Your task to perform on an android device: Search for the best rated 4K TV on Best Buy. Image 0: 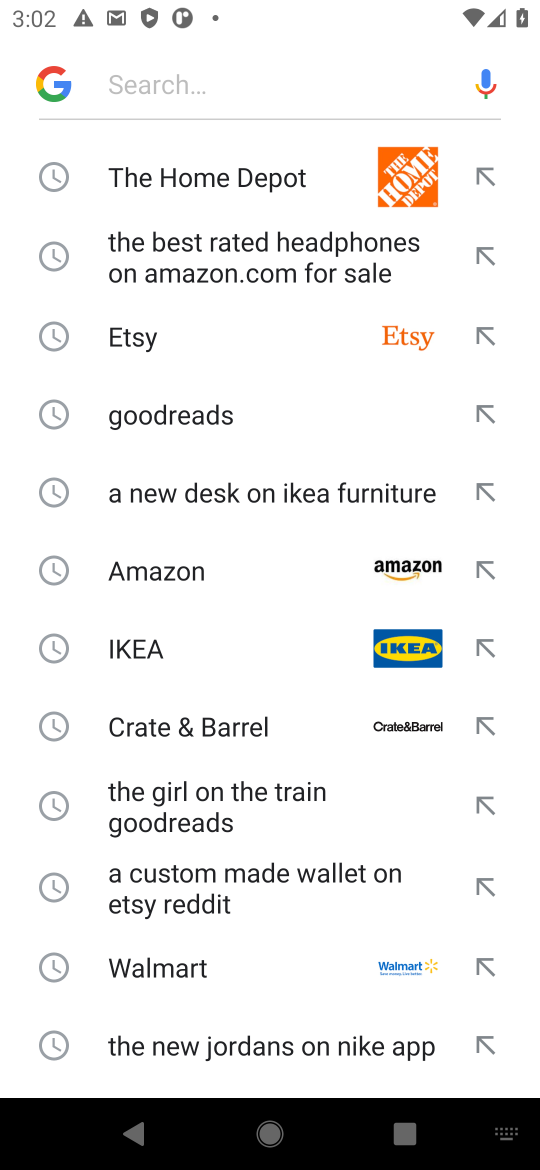
Step 0: press home button
Your task to perform on an android device: Search for the best rated 4K TV on Best Buy. Image 1: 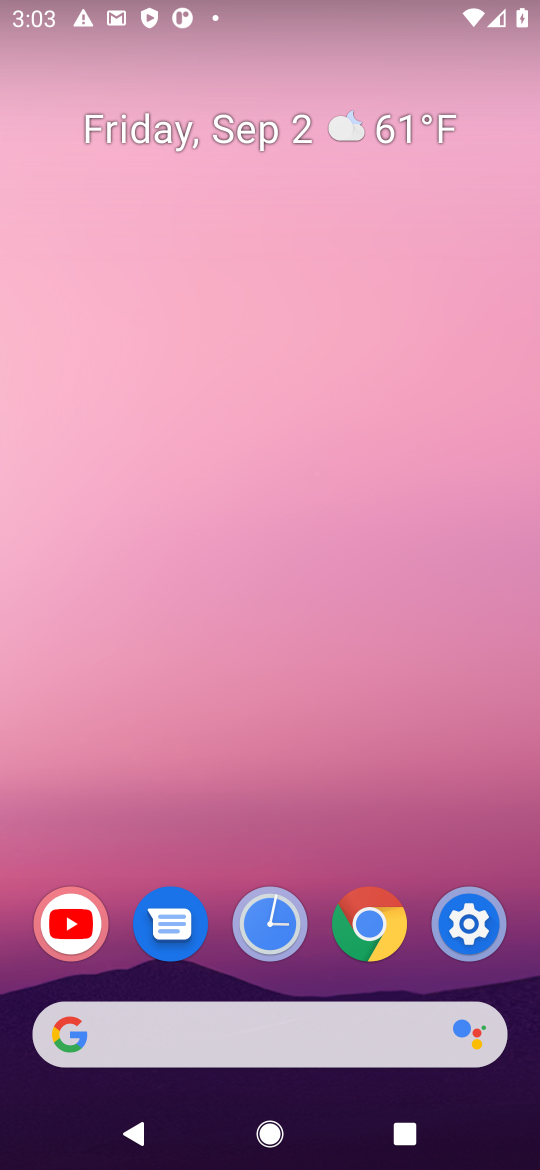
Step 1: click (377, 1026)
Your task to perform on an android device: Search for the best rated 4K TV on Best Buy. Image 2: 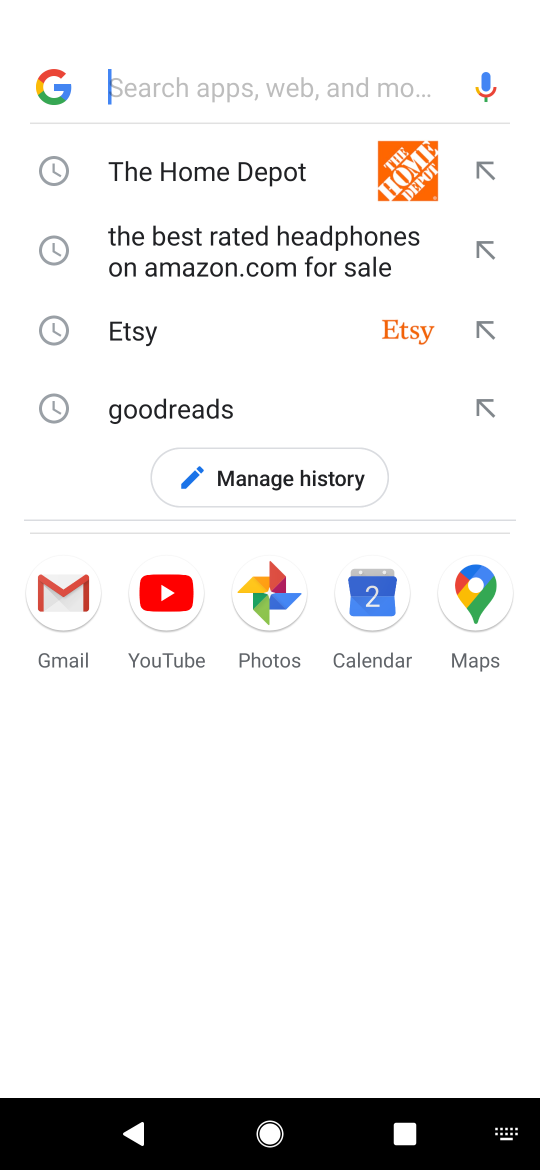
Step 2: press enter
Your task to perform on an android device: Search for the best rated 4K TV on Best Buy. Image 3: 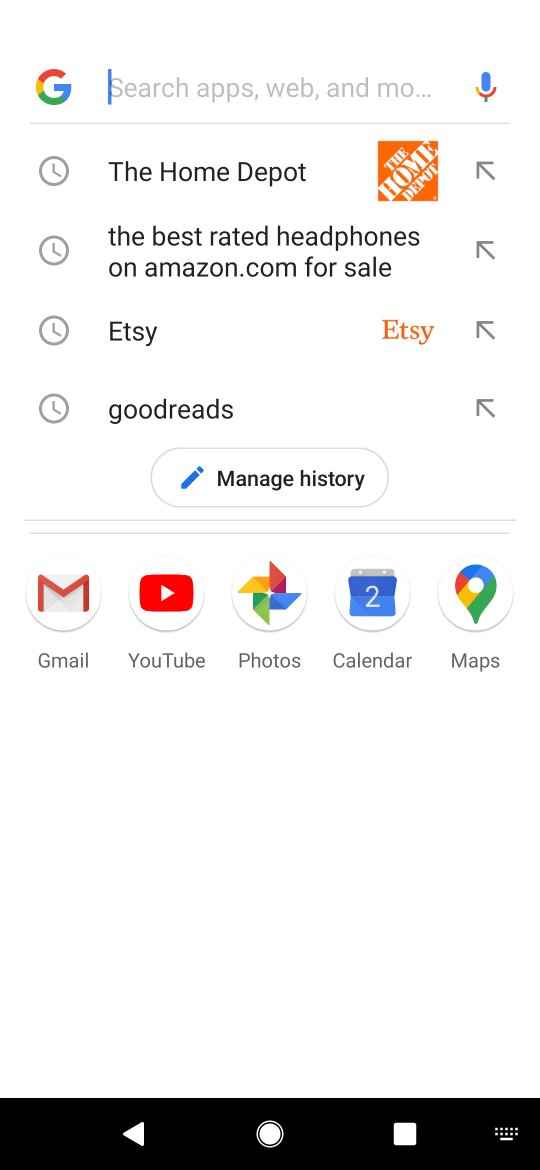
Step 3: type "best buy"
Your task to perform on an android device: Search for the best rated 4K TV on Best Buy. Image 4: 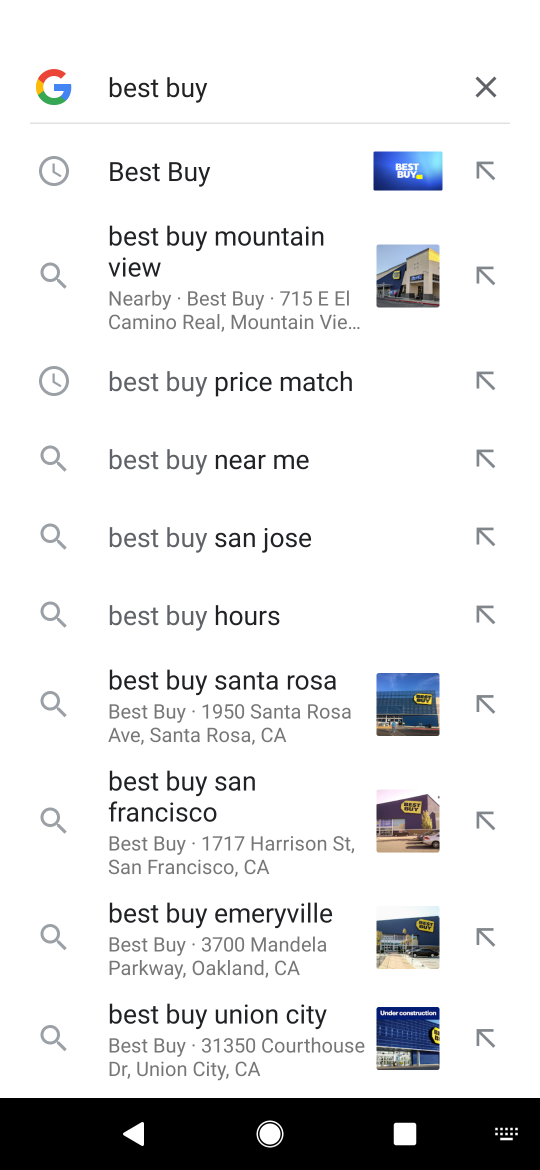
Step 4: click (223, 165)
Your task to perform on an android device: Search for the best rated 4K TV on Best Buy. Image 5: 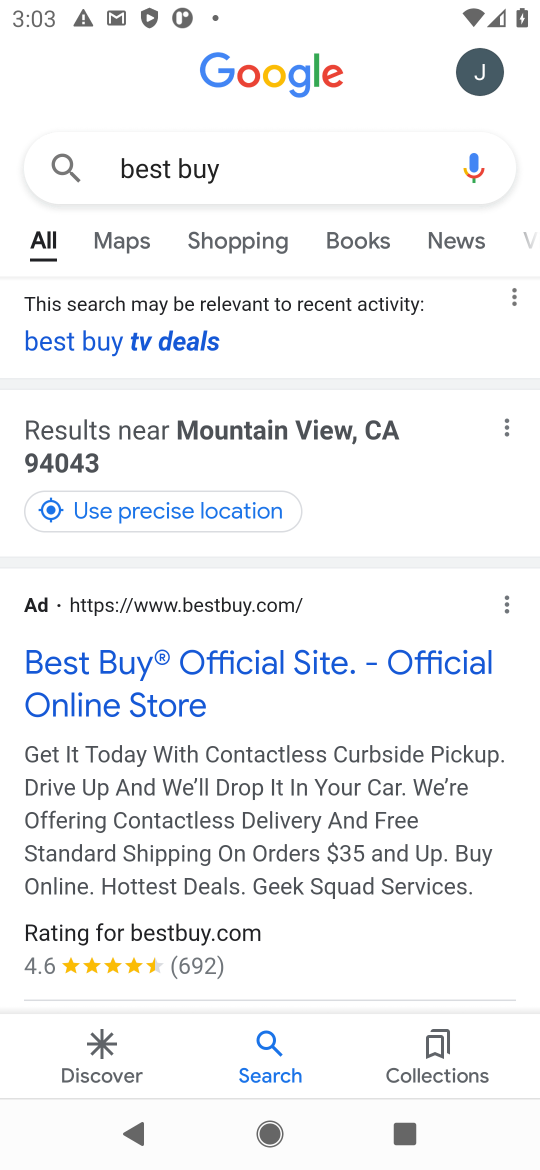
Step 5: click (385, 682)
Your task to perform on an android device: Search for the best rated 4K TV on Best Buy. Image 6: 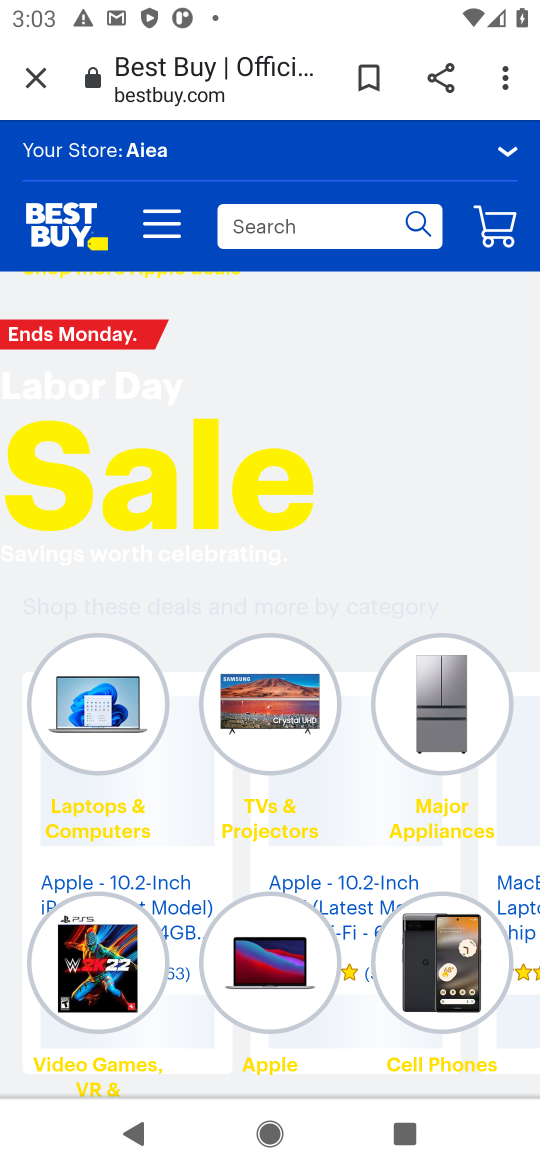
Step 6: click (287, 225)
Your task to perform on an android device: Search for the best rated 4K TV on Best Buy. Image 7: 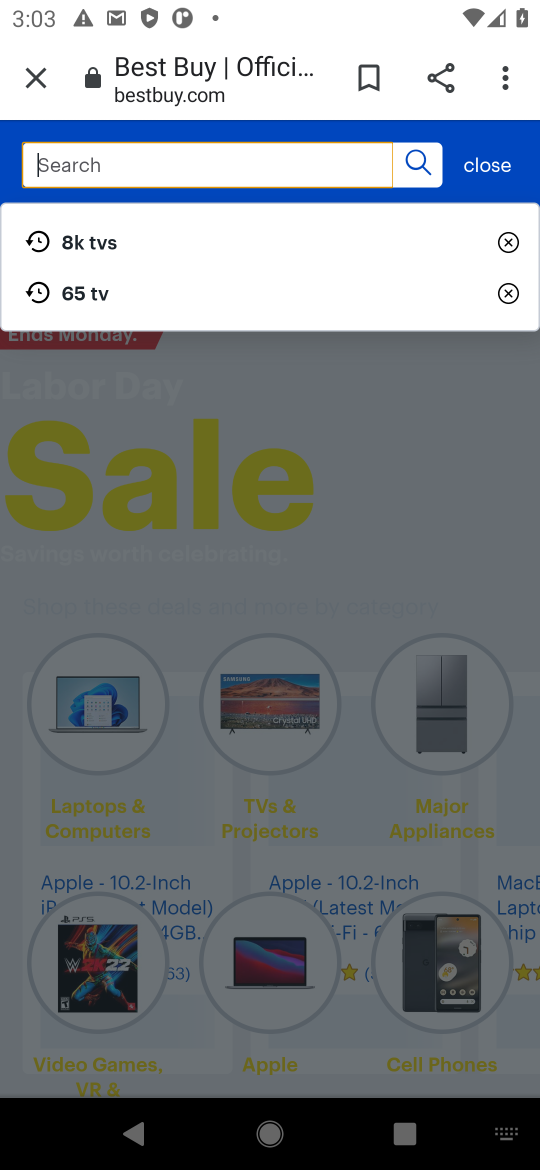
Step 7: press enter
Your task to perform on an android device: Search for the best rated 4K TV on Best Buy. Image 8: 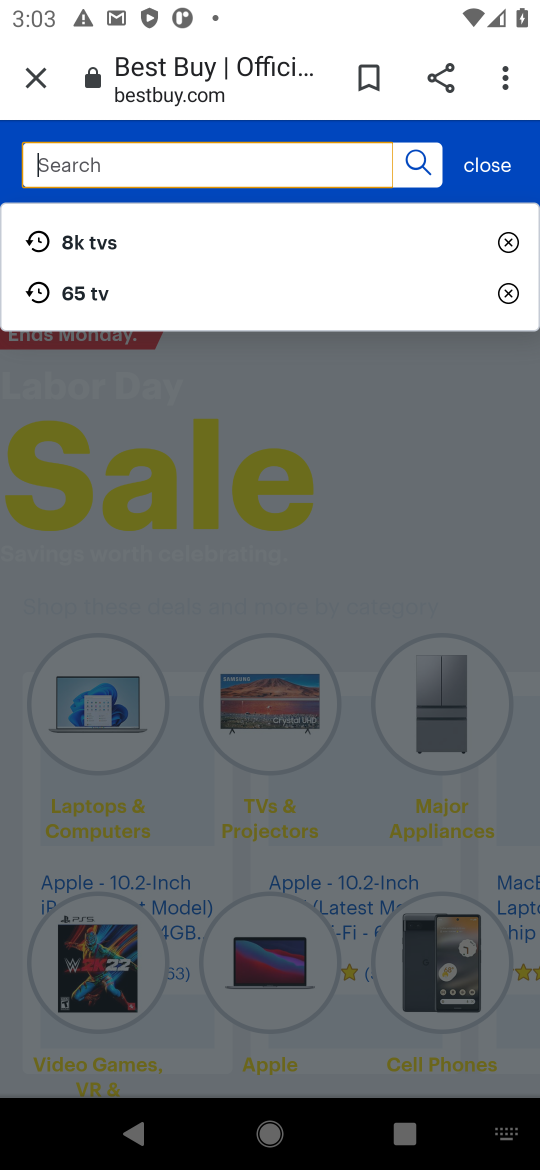
Step 8: type "4k tv"
Your task to perform on an android device: Search for the best rated 4K TV on Best Buy. Image 9: 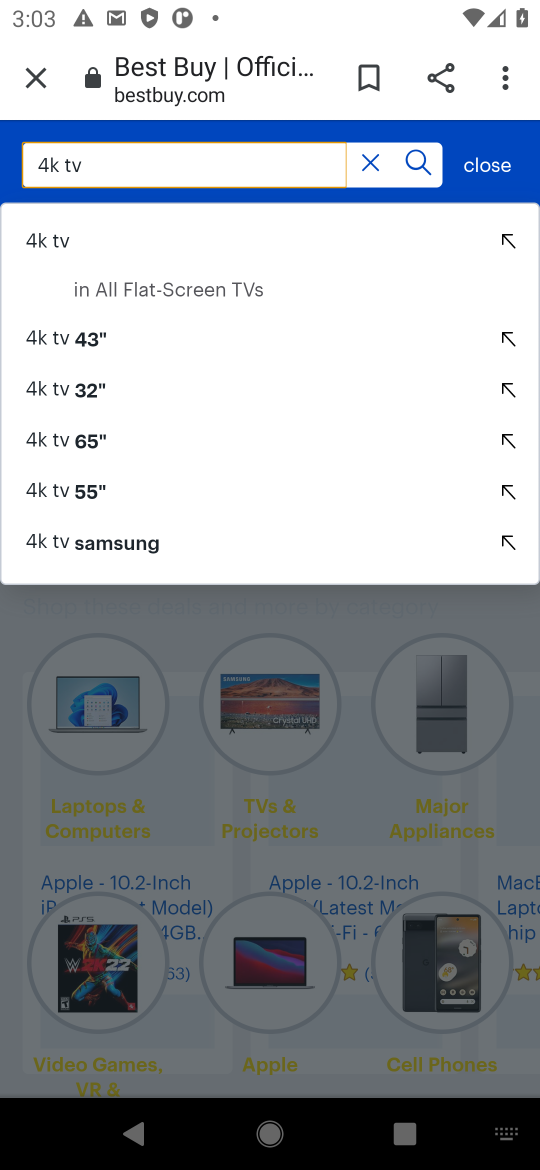
Step 9: click (86, 234)
Your task to perform on an android device: Search for the best rated 4K TV on Best Buy. Image 10: 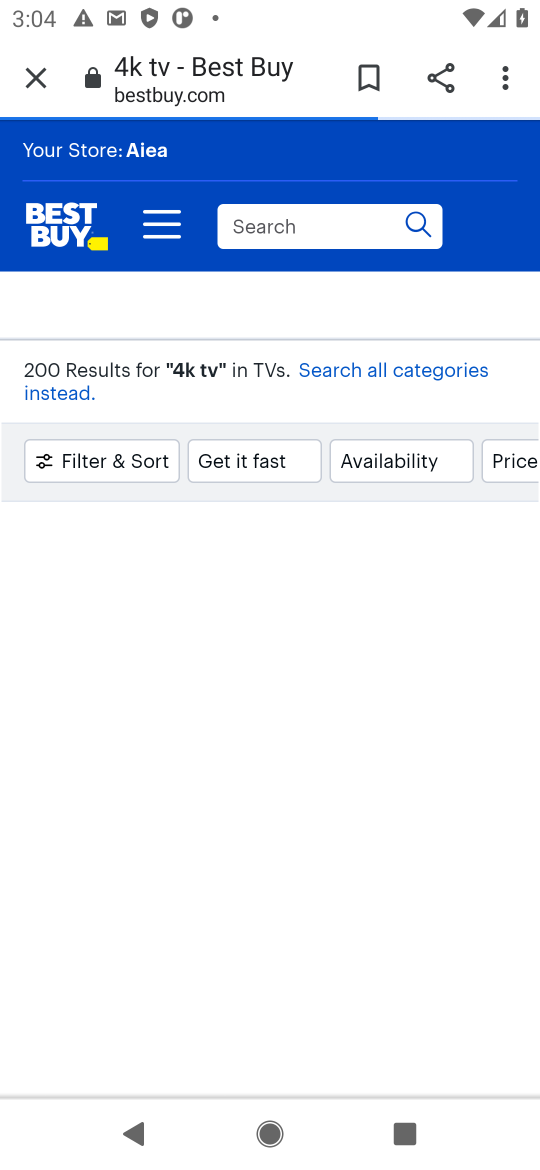
Step 10: click (409, 159)
Your task to perform on an android device: Search for the best rated 4K TV on Best Buy. Image 11: 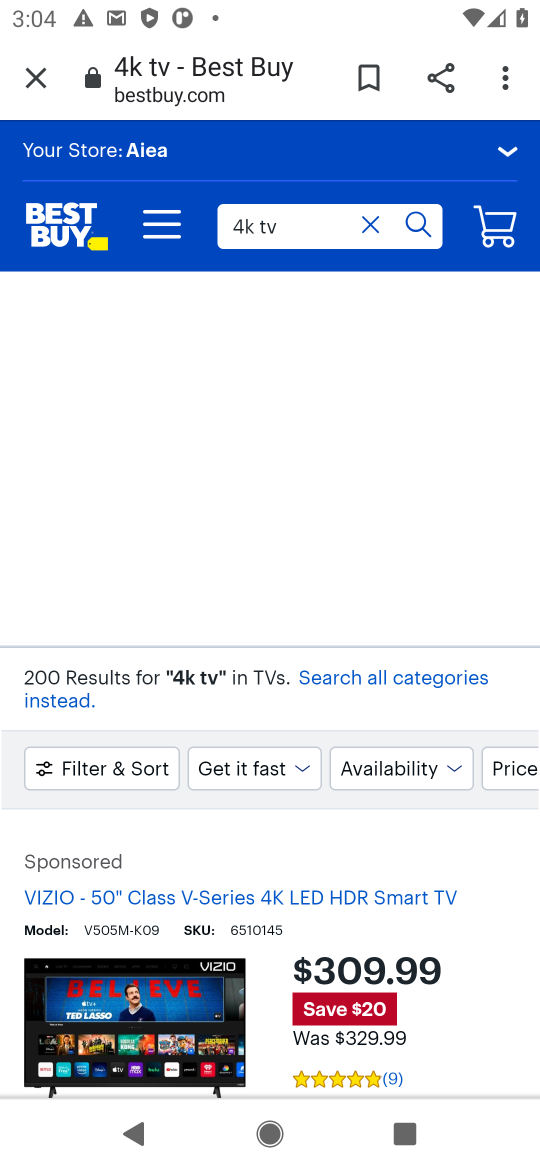
Step 11: task complete